Your task to perform on an android device: open the mobile data screen to see how much data has been used Image 0: 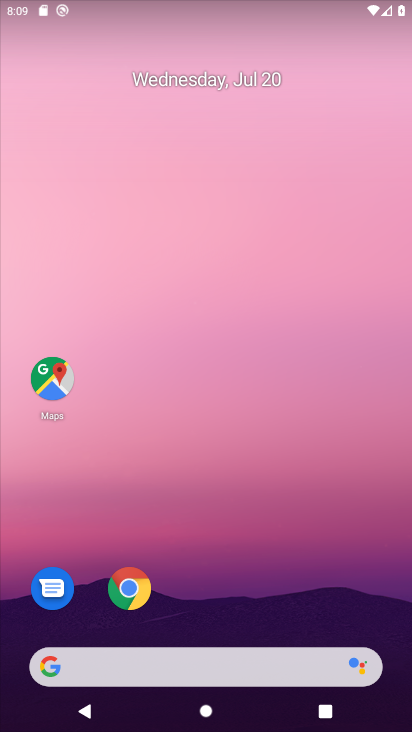
Step 0: press home button
Your task to perform on an android device: open the mobile data screen to see how much data has been used Image 1: 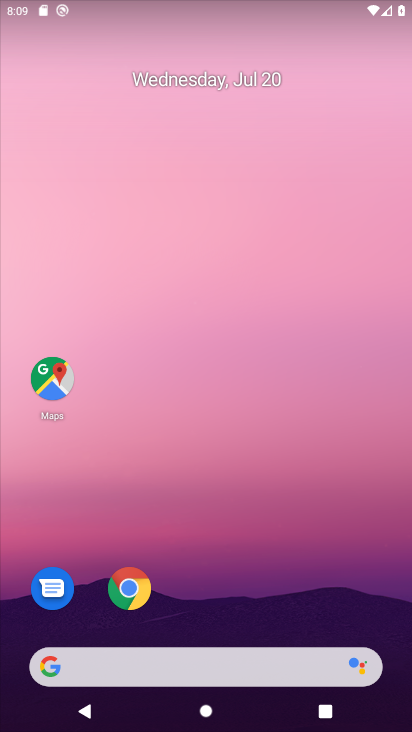
Step 1: drag from (220, 626) to (241, 27)
Your task to perform on an android device: open the mobile data screen to see how much data has been used Image 2: 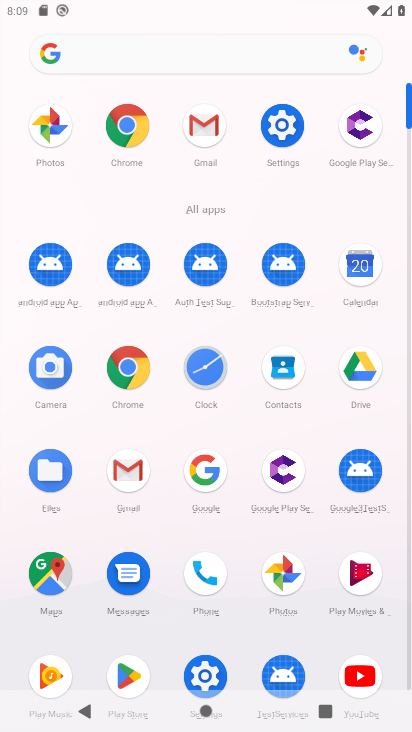
Step 2: click (279, 118)
Your task to perform on an android device: open the mobile data screen to see how much data has been used Image 3: 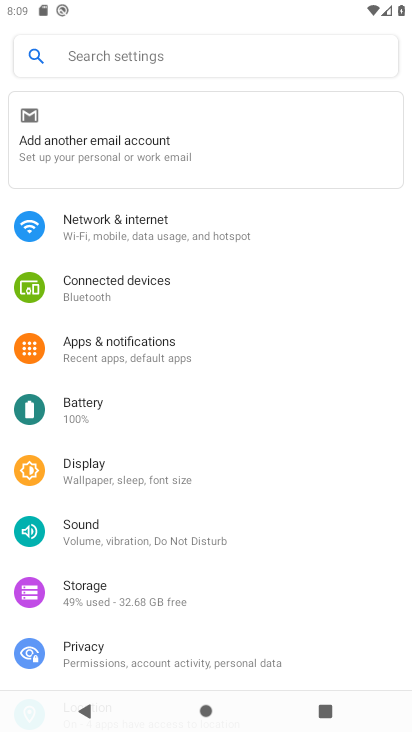
Step 3: click (137, 220)
Your task to perform on an android device: open the mobile data screen to see how much data has been used Image 4: 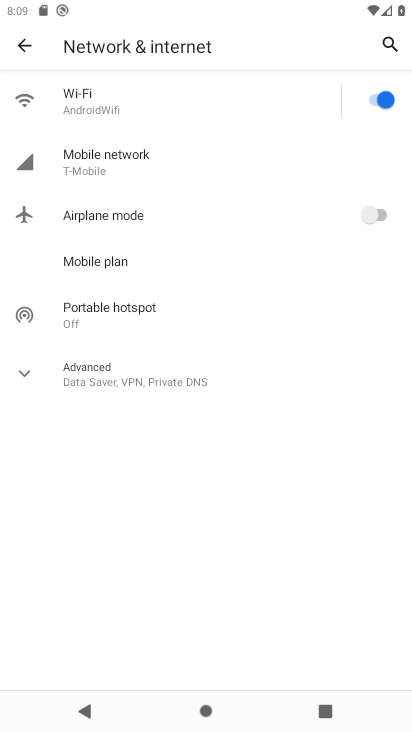
Step 4: click (85, 167)
Your task to perform on an android device: open the mobile data screen to see how much data has been used Image 5: 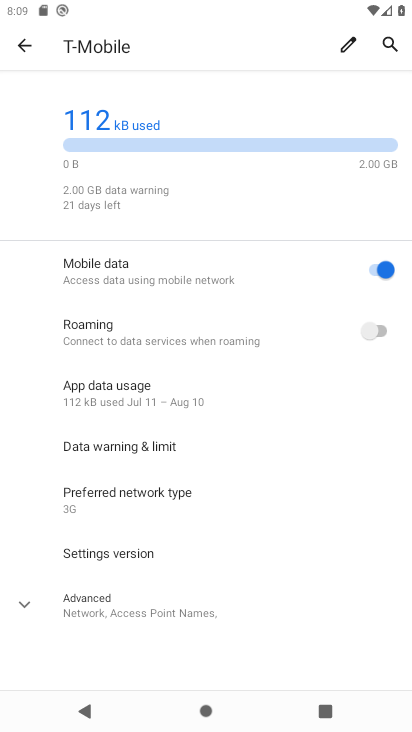
Step 5: click (142, 393)
Your task to perform on an android device: open the mobile data screen to see how much data has been used Image 6: 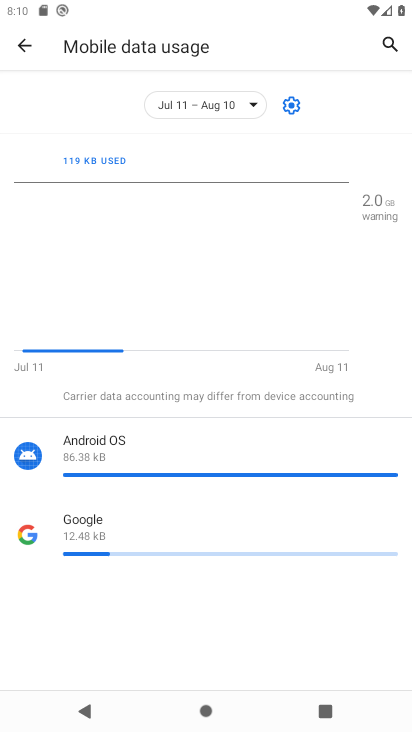
Step 6: task complete